Your task to perform on an android device: Do I have any events this weekend? Image 0: 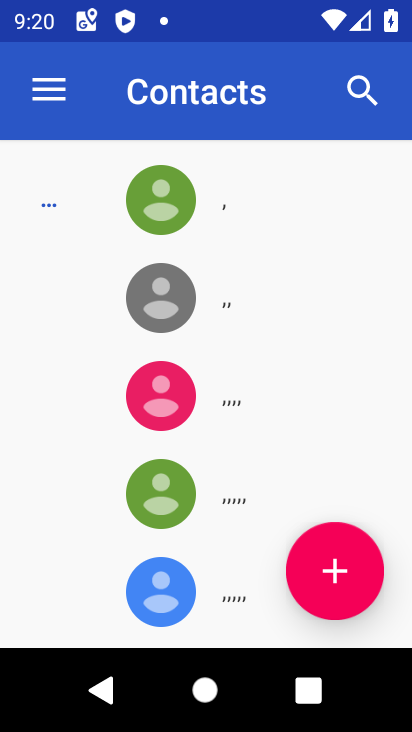
Step 0: press home button
Your task to perform on an android device: Do I have any events this weekend? Image 1: 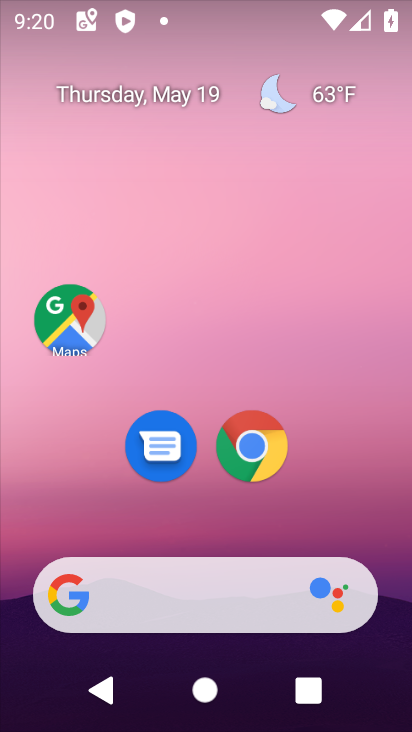
Step 1: drag from (168, 494) to (192, 0)
Your task to perform on an android device: Do I have any events this weekend? Image 2: 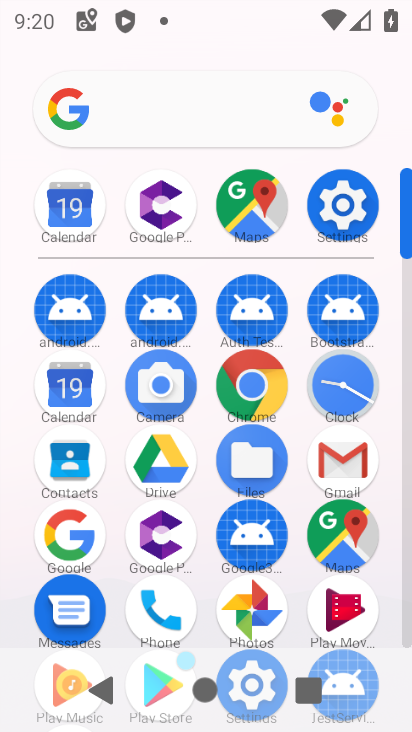
Step 2: click (83, 394)
Your task to perform on an android device: Do I have any events this weekend? Image 3: 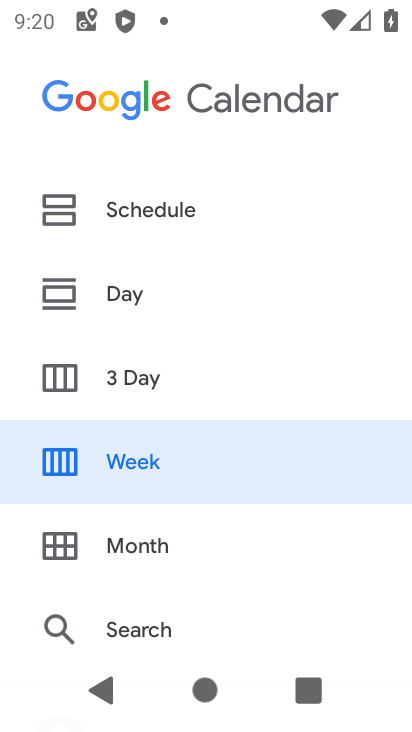
Step 3: click (130, 472)
Your task to perform on an android device: Do I have any events this weekend? Image 4: 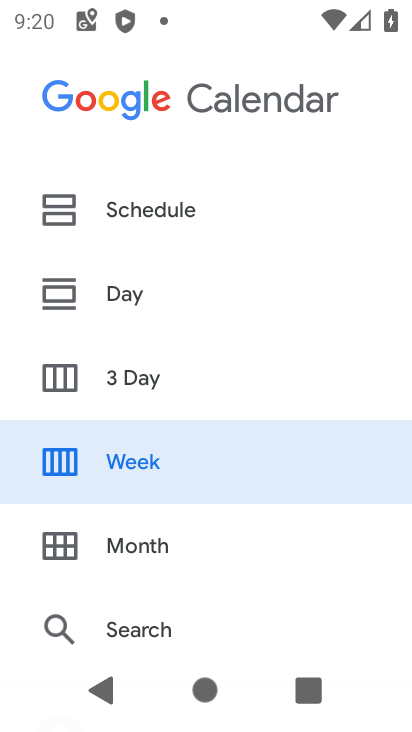
Step 4: click (130, 472)
Your task to perform on an android device: Do I have any events this weekend? Image 5: 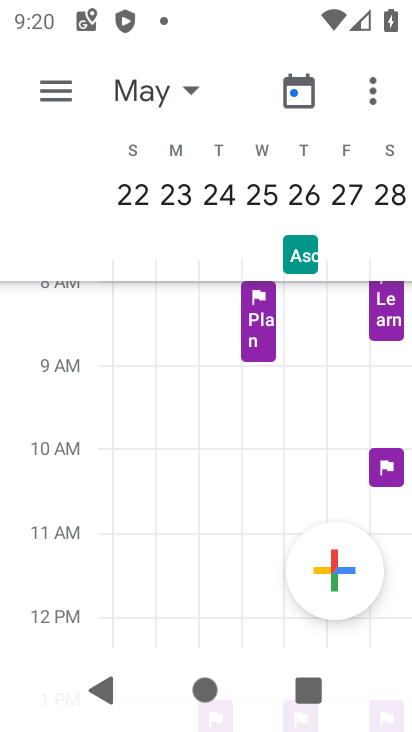
Step 5: click (58, 84)
Your task to perform on an android device: Do I have any events this weekend? Image 6: 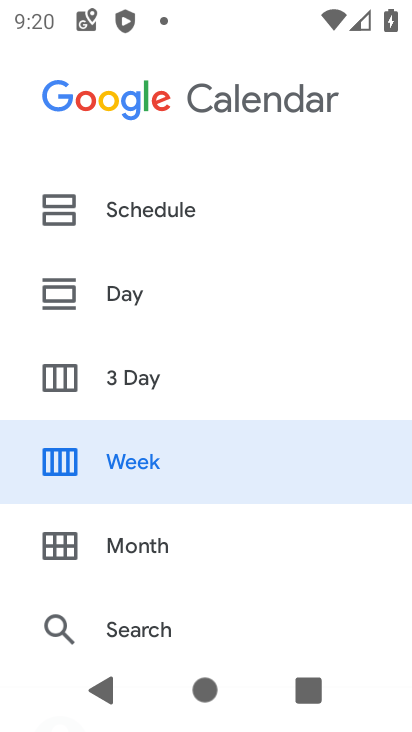
Step 6: drag from (118, 569) to (257, 180)
Your task to perform on an android device: Do I have any events this weekend? Image 7: 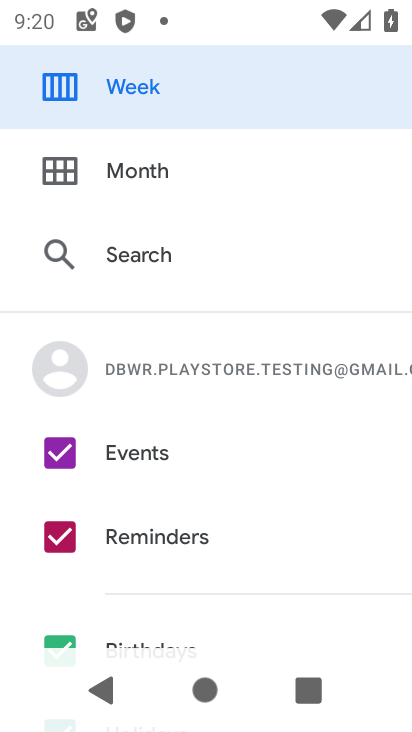
Step 7: drag from (176, 551) to (208, 364)
Your task to perform on an android device: Do I have any events this weekend? Image 8: 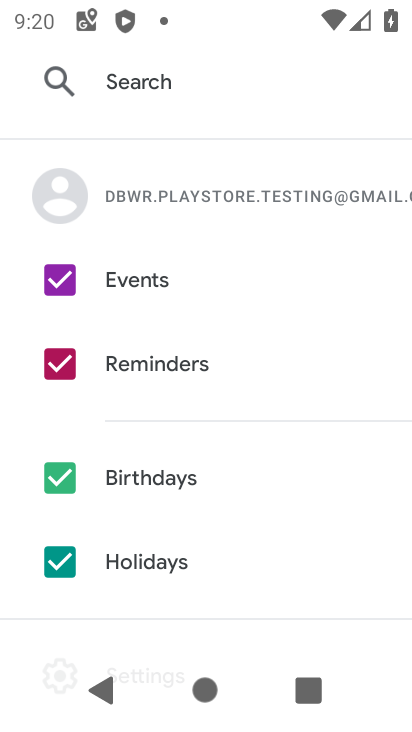
Step 8: click (55, 358)
Your task to perform on an android device: Do I have any events this weekend? Image 9: 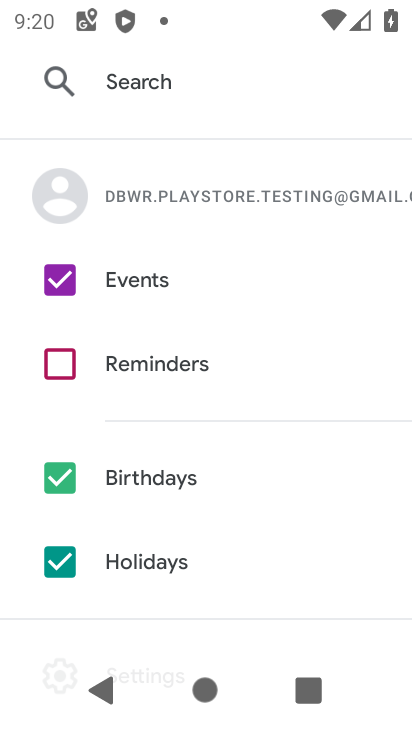
Step 9: click (54, 484)
Your task to perform on an android device: Do I have any events this weekend? Image 10: 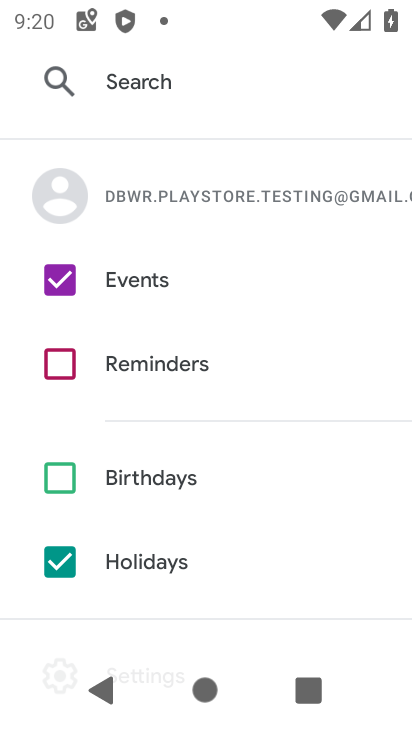
Step 10: click (63, 566)
Your task to perform on an android device: Do I have any events this weekend? Image 11: 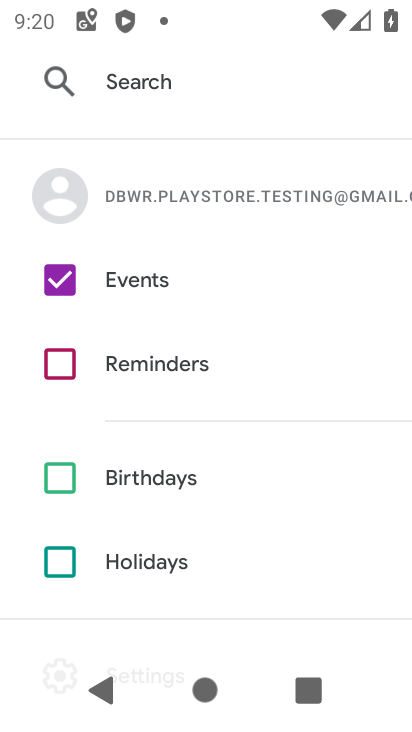
Step 11: drag from (256, 152) to (239, 504)
Your task to perform on an android device: Do I have any events this weekend? Image 12: 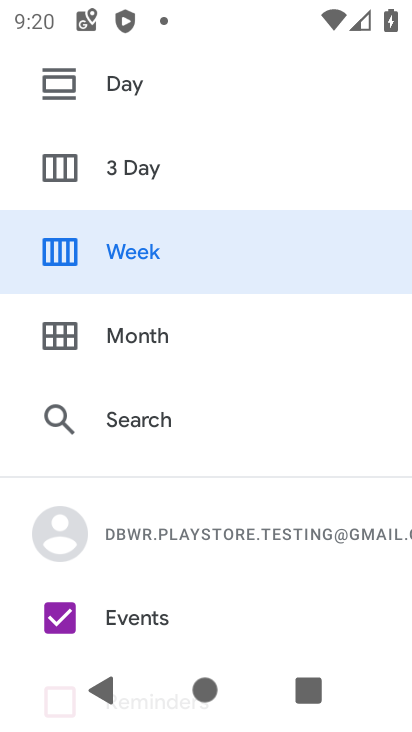
Step 12: click (160, 258)
Your task to perform on an android device: Do I have any events this weekend? Image 13: 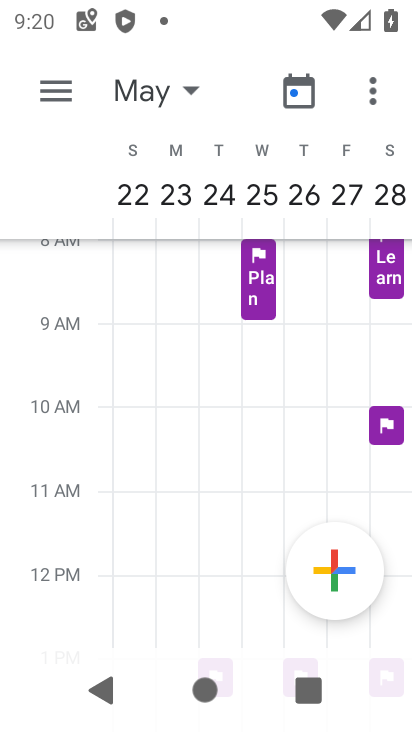
Step 13: task complete